Your task to perform on an android device: show emergency info Image 0: 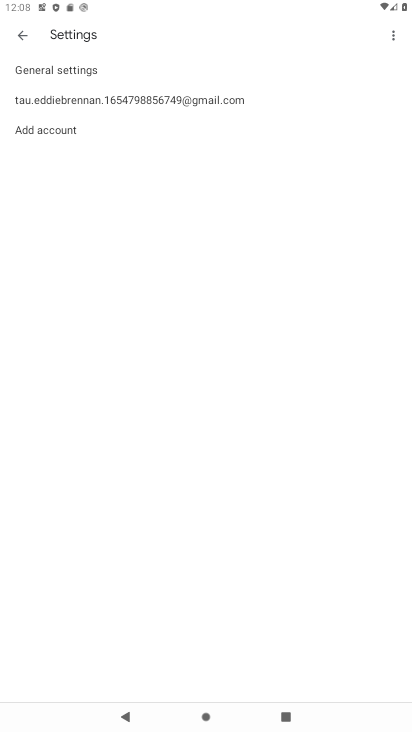
Step 0: press home button
Your task to perform on an android device: show emergency info Image 1: 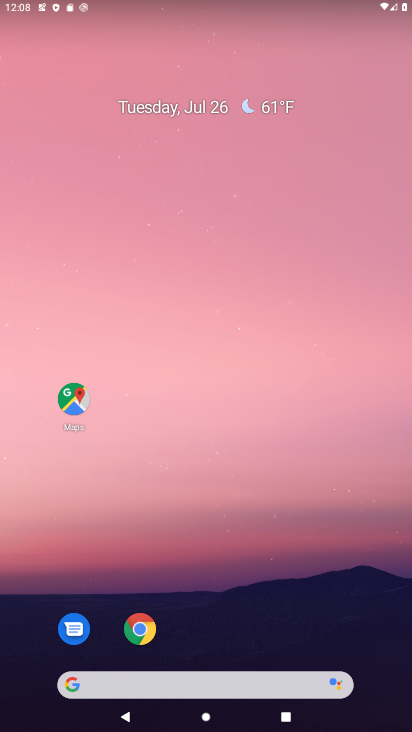
Step 1: drag from (220, 638) to (216, 159)
Your task to perform on an android device: show emergency info Image 2: 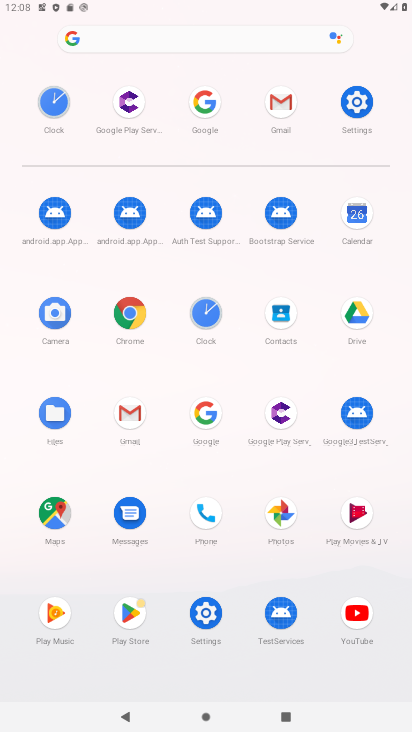
Step 2: click (360, 127)
Your task to perform on an android device: show emergency info Image 3: 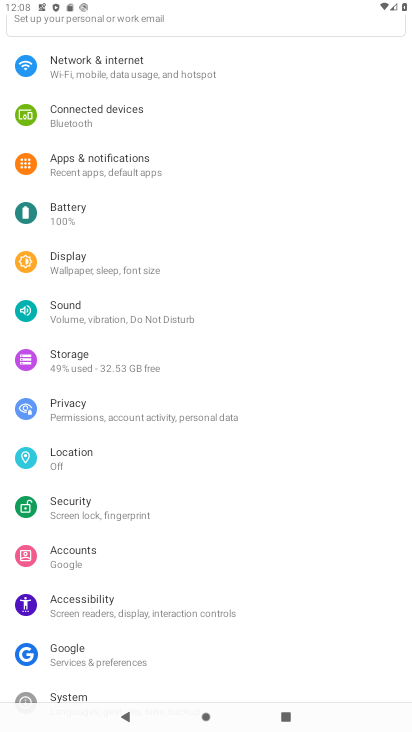
Step 3: drag from (151, 641) to (123, 250)
Your task to perform on an android device: show emergency info Image 4: 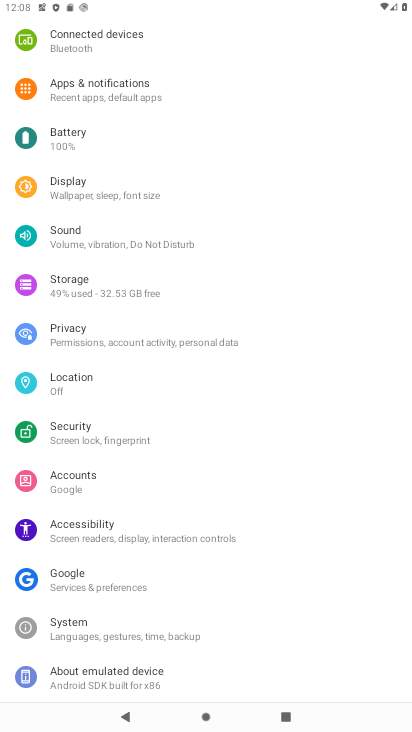
Step 4: click (94, 666)
Your task to perform on an android device: show emergency info Image 5: 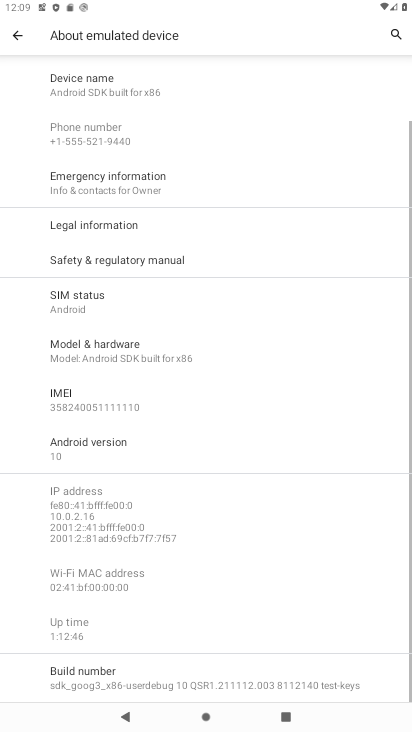
Step 5: drag from (143, 615) to (151, 543)
Your task to perform on an android device: show emergency info Image 6: 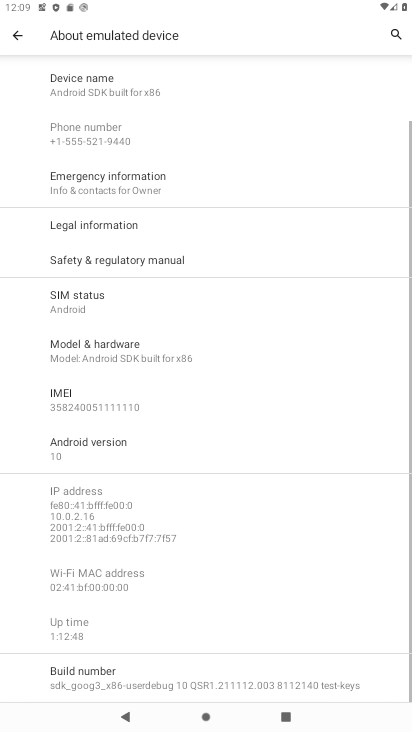
Step 6: click (131, 188)
Your task to perform on an android device: show emergency info Image 7: 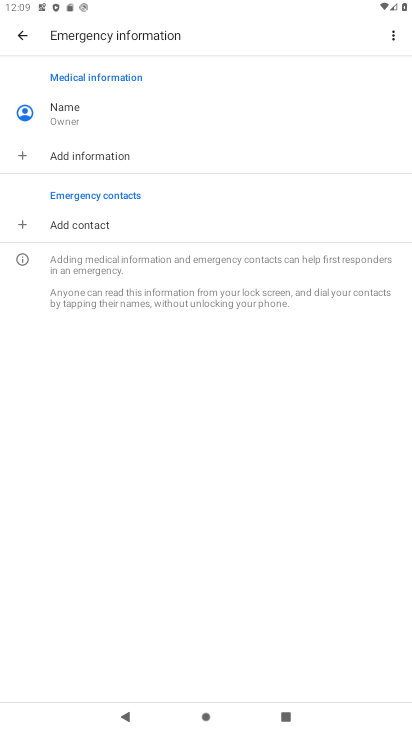
Step 7: task complete